Your task to perform on an android device: see tabs open on other devices in the chrome app Image 0: 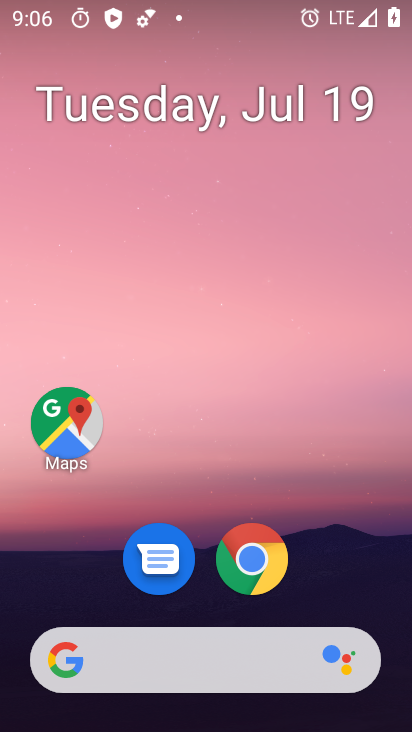
Step 0: drag from (369, 592) to (304, 3)
Your task to perform on an android device: see tabs open on other devices in the chrome app Image 1: 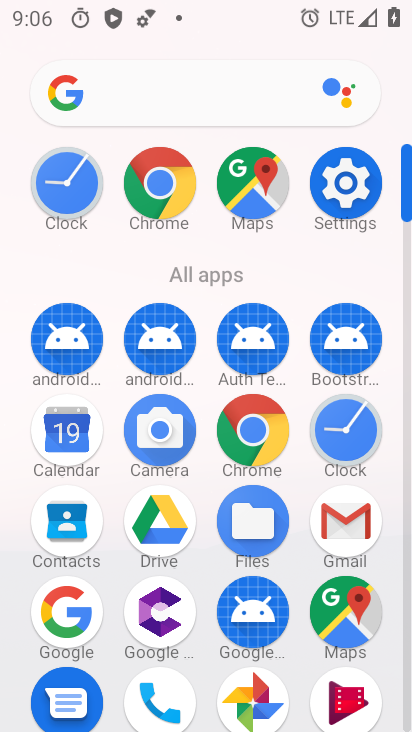
Step 1: click (165, 185)
Your task to perform on an android device: see tabs open on other devices in the chrome app Image 2: 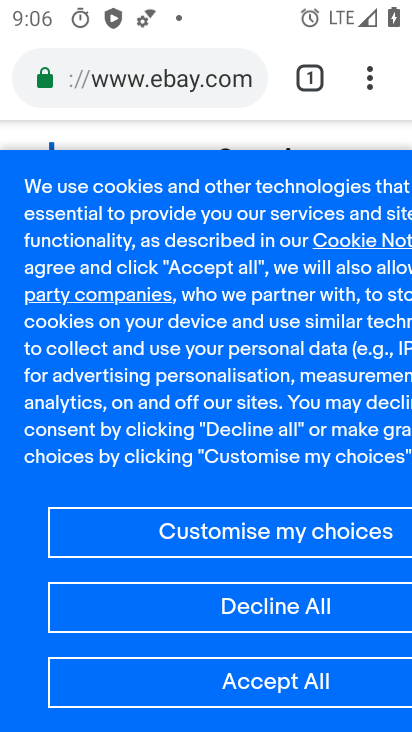
Step 2: click (367, 90)
Your task to perform on an android device: see tabs open on other devices in the chrome app Image 3: 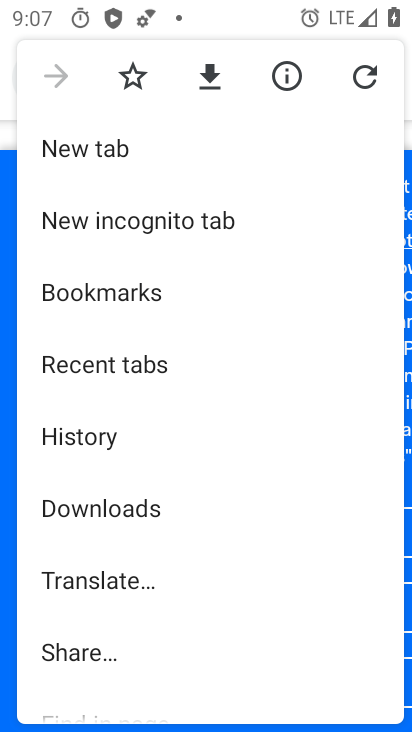
Step 3: click (126, 361)
Your task to perform on an android device: see tabs open on other devices in the chrome app Image 4: 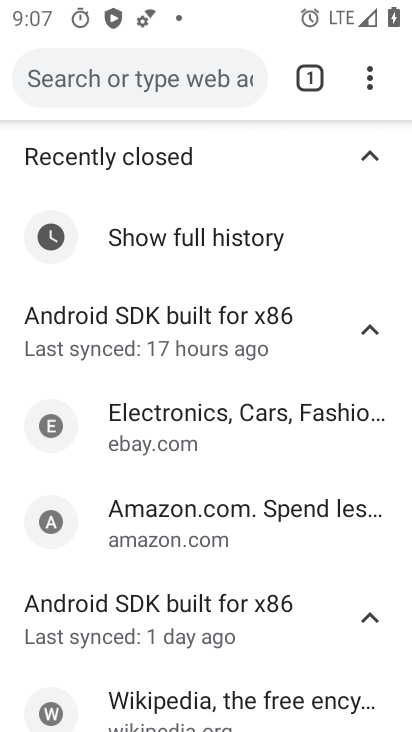
Step 4: task complete